Your task to perform on an android device: turn smart compose on in the gmail app Image 0: 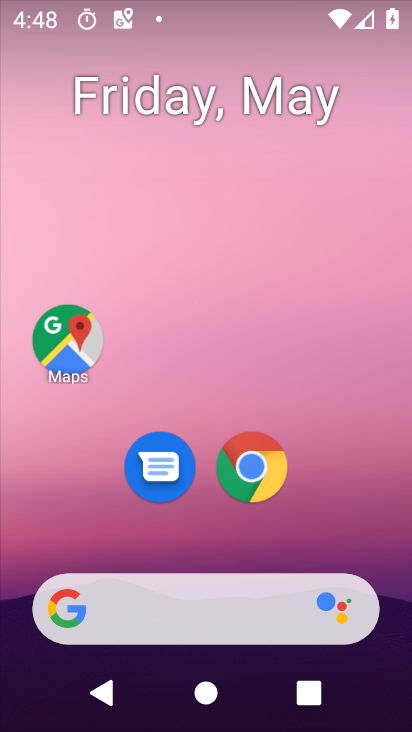
Step 0: drag from (327, 513) to (284, 107)
Your task to perform on an android device: turn smart compose on in the gmail app Image 1: 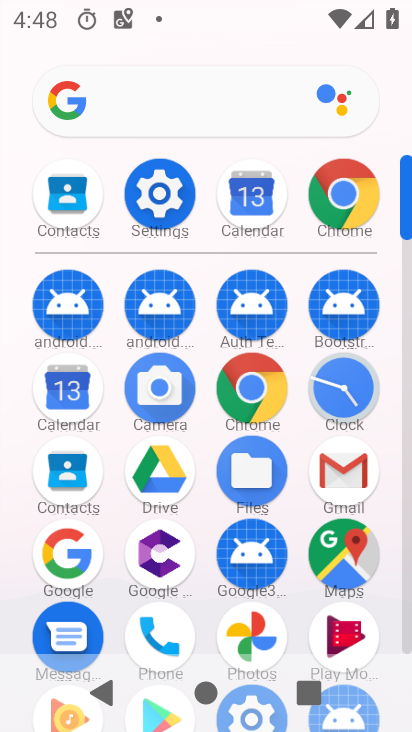
Step 1: click (339, 463)
Your task to perform on an android device: turn smart compose on in the gmail app Image 2: 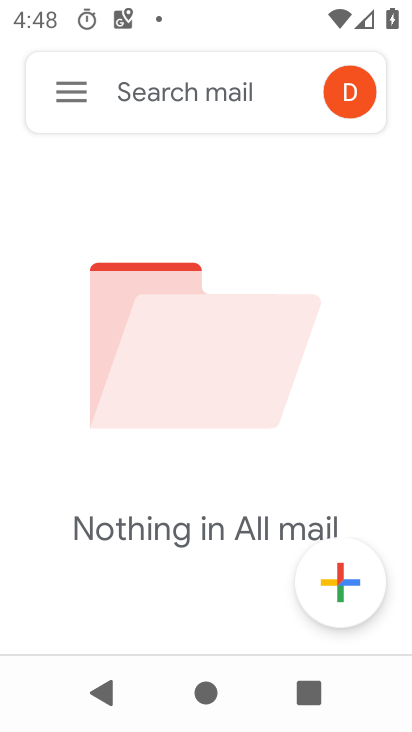
Step 2: click (84, 92)
Your task to perform on an android device: turn smart compose on in the gmail app Image 3: 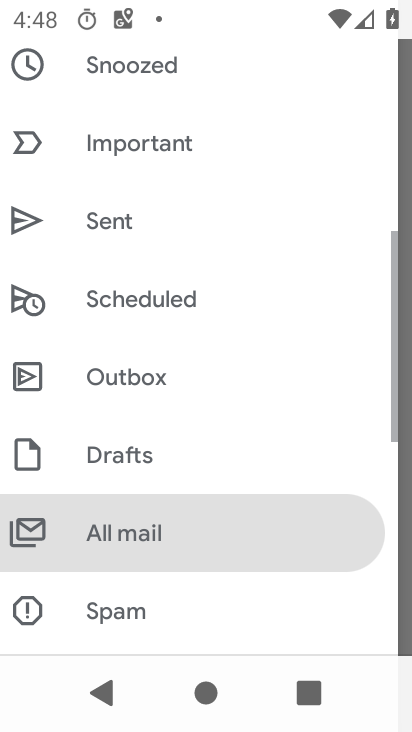
Step 3: drag from (203, 348) to (203, 111)
Your task to perform on an android device: turn smart compose on in the gmail app Image 4: 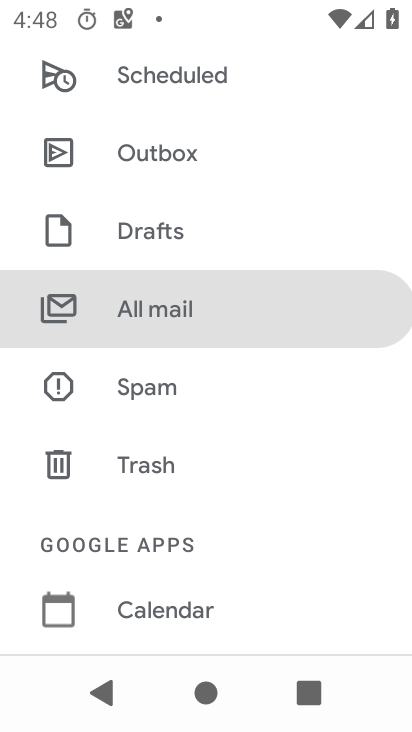
Step 4: drag from (209, 605) to (227, 221)
Your task to perform on an android device: turn smart compose on in the gmail app Image 5: 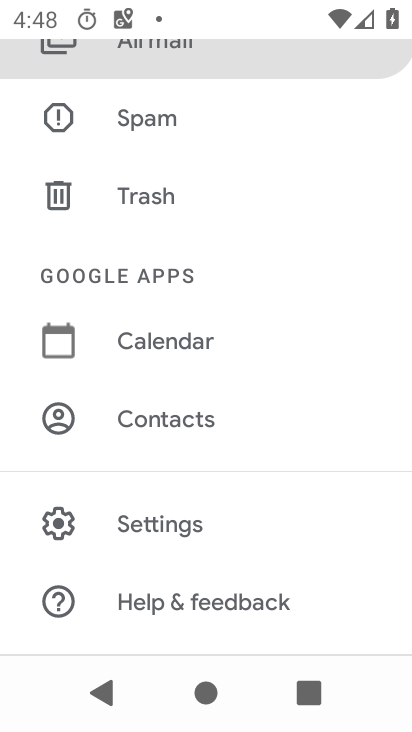
Step 5: click (180, 534)
Your task to perform on an android device: turn smart compose on in the gmail app Image 6: 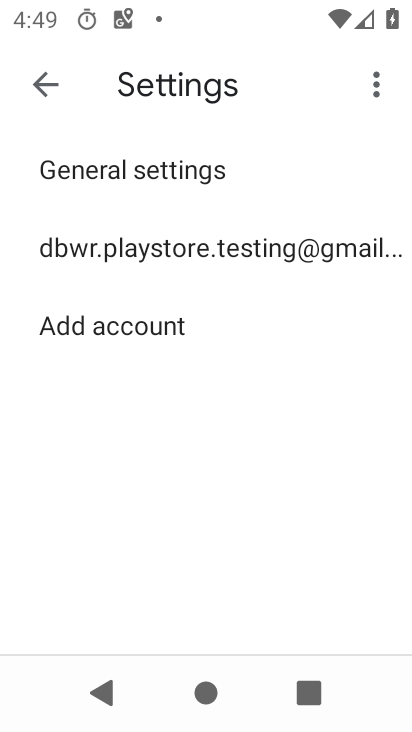
Step 6: click (254, 244)
Your task to perform on an android device: turn smart compose on in the gmail app Image 7: 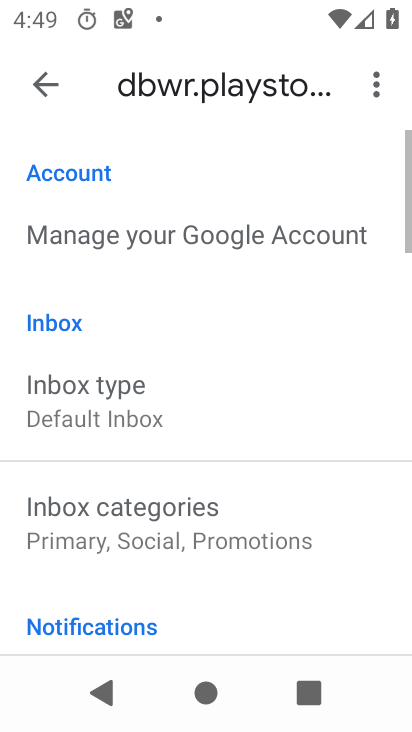
Step 7: task complete